Your task to perform on an android device: Open calendar and show me the first week of next month Image 0: 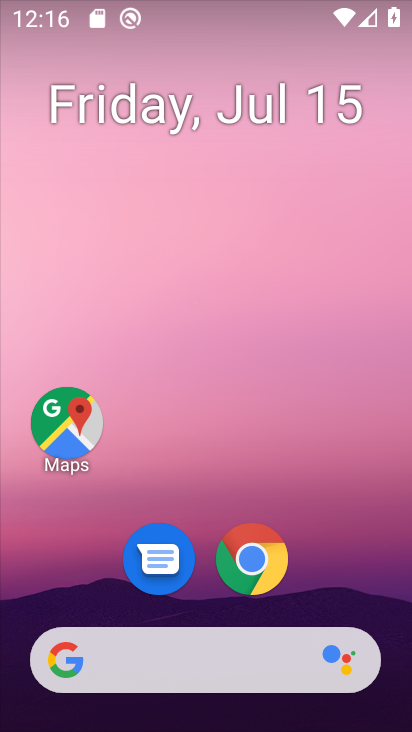
Step 0: drag from (359, 585) to (365, 86)
Your task to perform on an android device: Open calendar and show me the first week of next month Image 1: 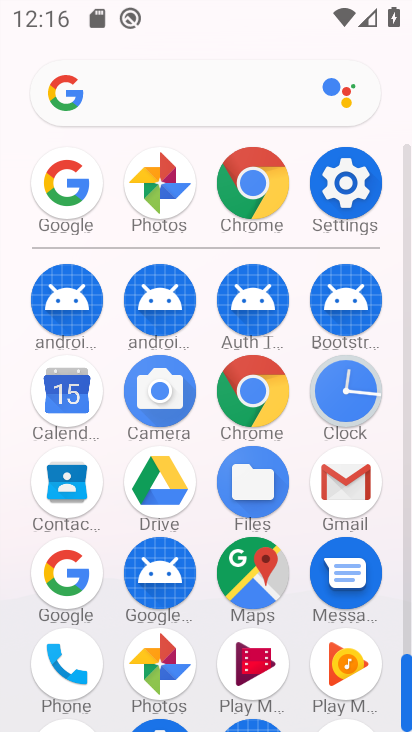
Step 1: click (78, 398)
Your task to perform on an android device: Open calendar and show me the first week of next month Image 2: 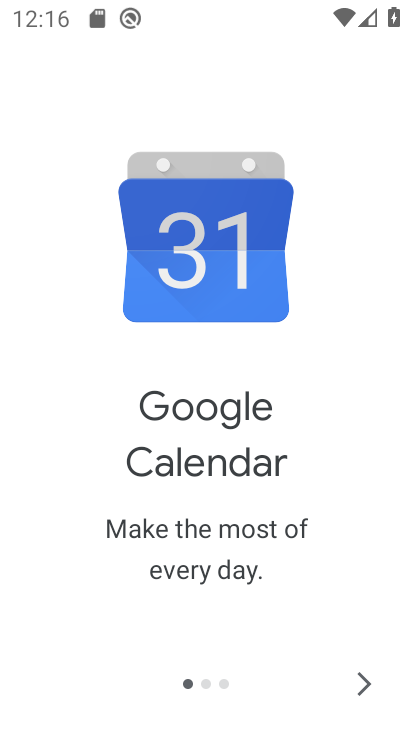
Step 2: click (361, 684)
Your task to perform on an android device: Open calendar and show me the first week of next month Image 3: 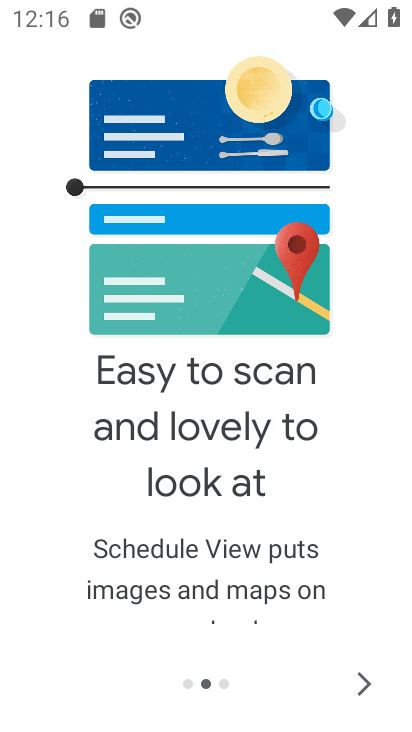
Step 3: click (361, 684)
Your task to perform on an android device: Open calendar and show me the first week of next month Image 4: 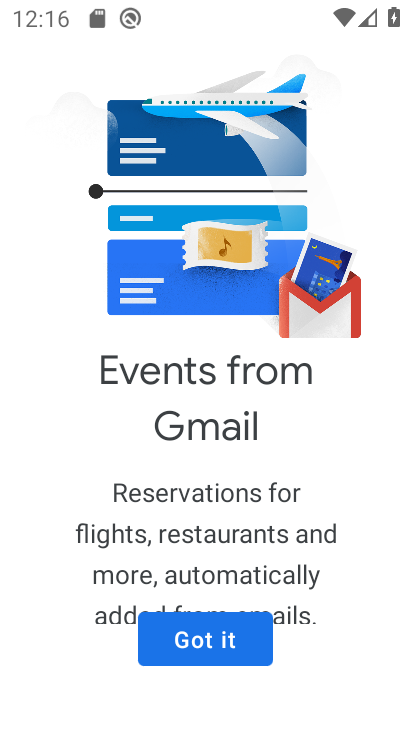
Step 4: click (262, 653)
Your task to perform on an android device: Open calendar and show me the first week of next month Image 5: 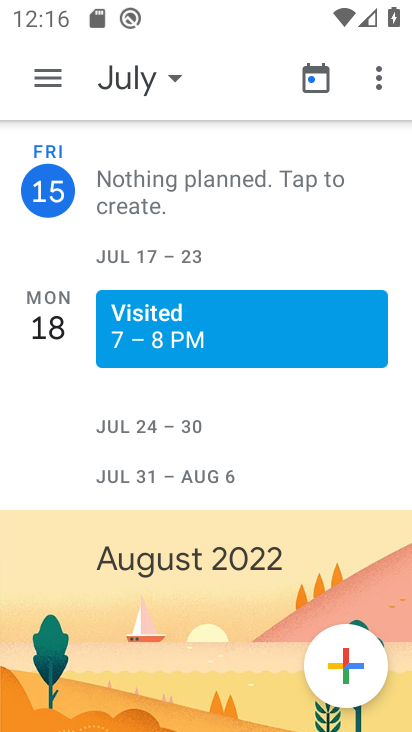
Step 5: click (184, 84)
Your task to perform on an android device: Open calendar and show me the first week of next month Image 6: 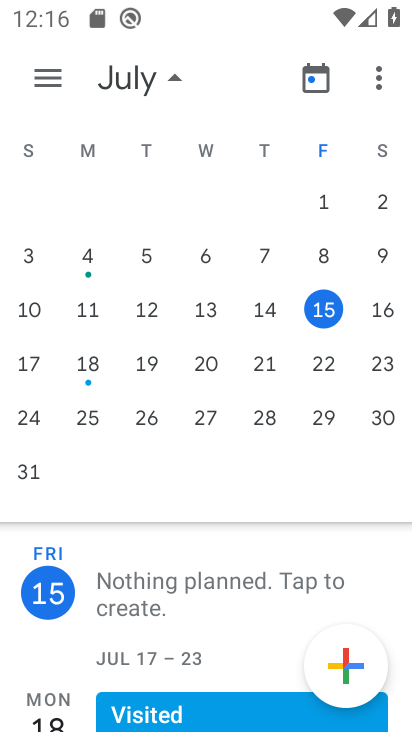
Step 6: task complete